Your task to perform on an android device: set the timer Image 0: 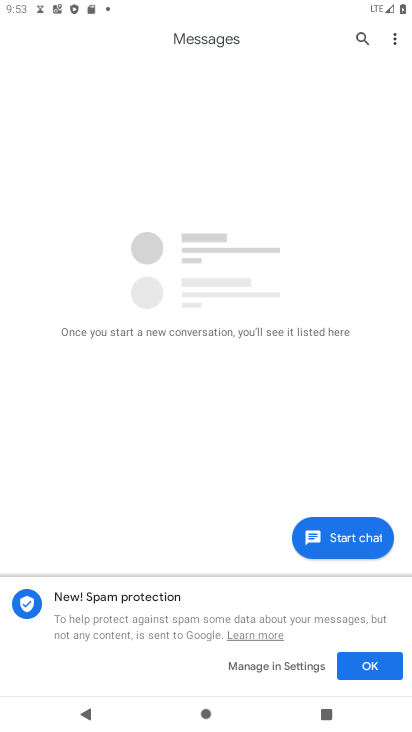
Step 0: press home button
Your task to perform on an android device: set the timer Image 1: 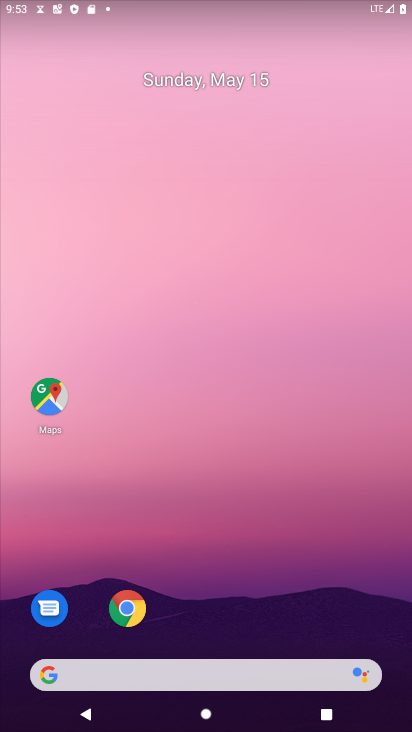
Step 1: drag from (298, 633) to (294, 72)
Your task to perform on an android device: set the timer Image 2: 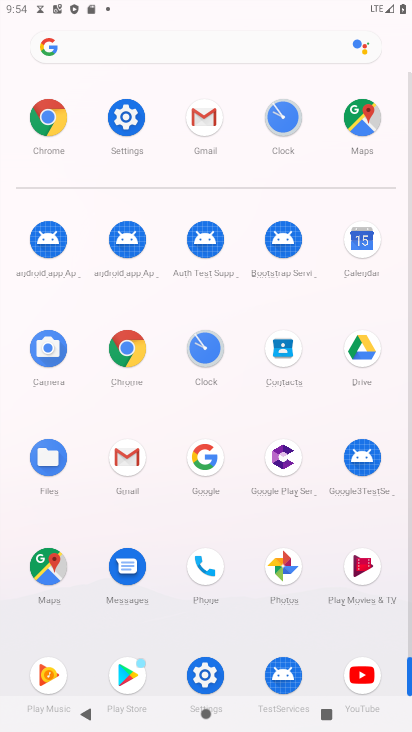
Step 2: click (204, 356)
Your task to perform on an android device: set the timer Image 3: 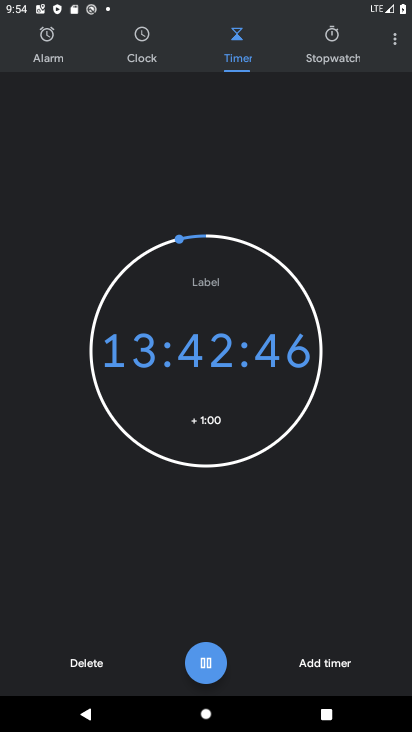
Step 3: task complete